Your task to perform on an android device: open app "Truecaller" (install if not already installed) and go to login screen Image 0: 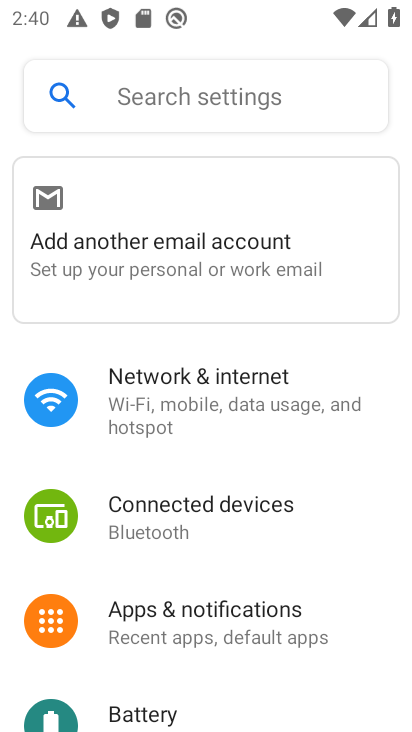
Step 0: press home button
Your task to perform on an android device: open app "Truecaller" (install if not already installed) and go to login screen Image 1: 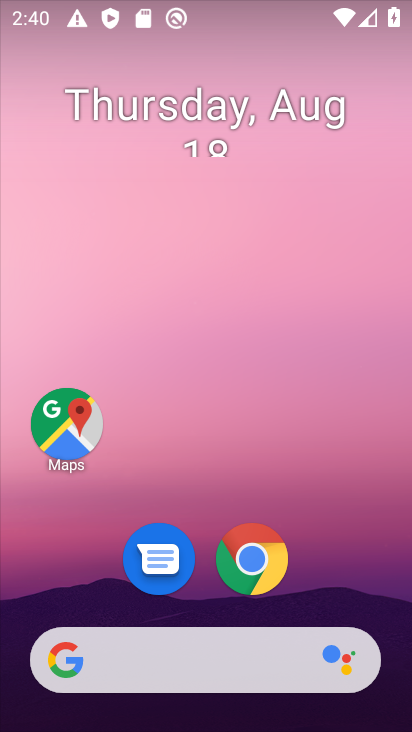
Step 1: drag from (211, 620) to (146, 91)
Your task to perform on an android device: open app "Truecaller" (install if not already installed) and go to login screen Image 2: 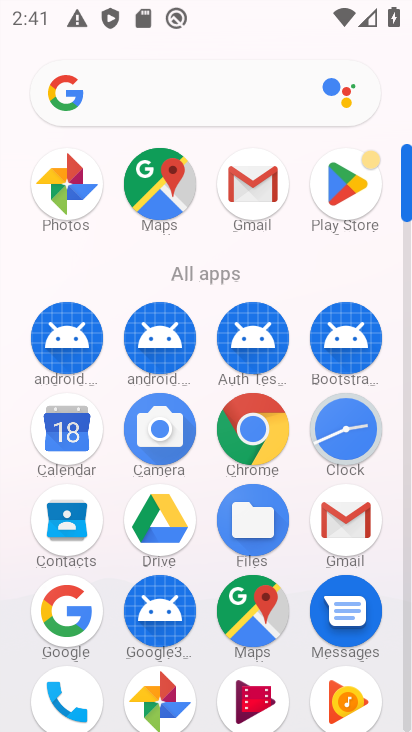
Step 2: click (352, 191)
Your task to perform on an android device: open app "Truecaller" (install if not already installed) and go to login screen Image 3: 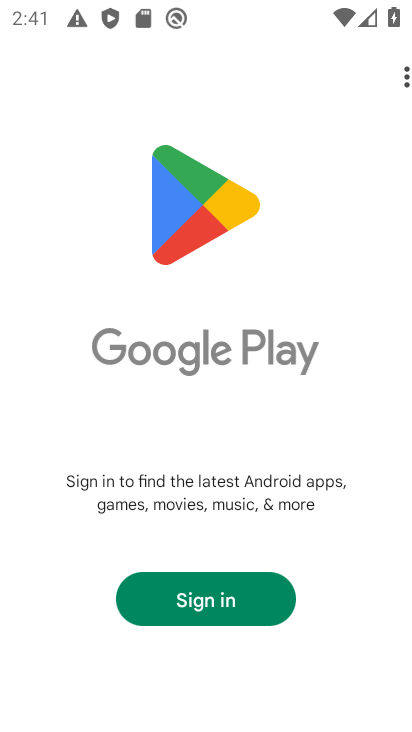
Step 3: click (211, 608)
Your task to perform on an android device: open app "Truecaller" (install if not already installed) and go to login screen Image 4: 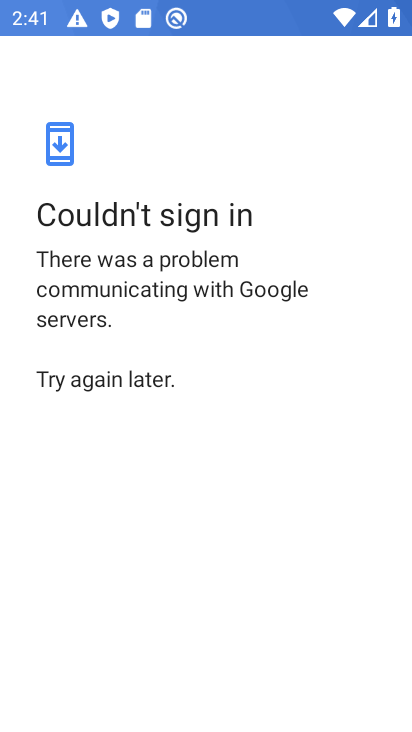
Step 4: task complete